Your task to perform on an android device: turn off location history Image 0: 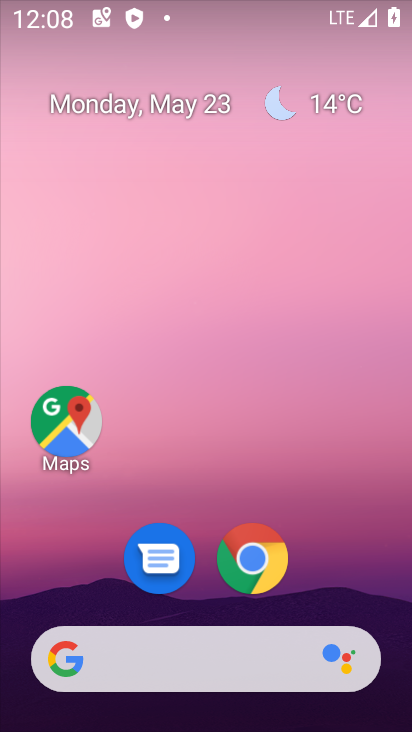
Step 0: click (70, 423)
Your task to perform on an android device: turn off location history Image 1: 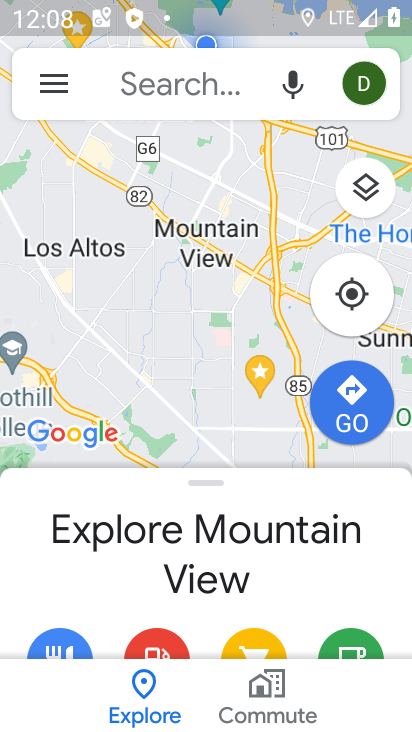
Step 1: click (59, 81)
Your task to perform on an android device: turn off location history Image 2: 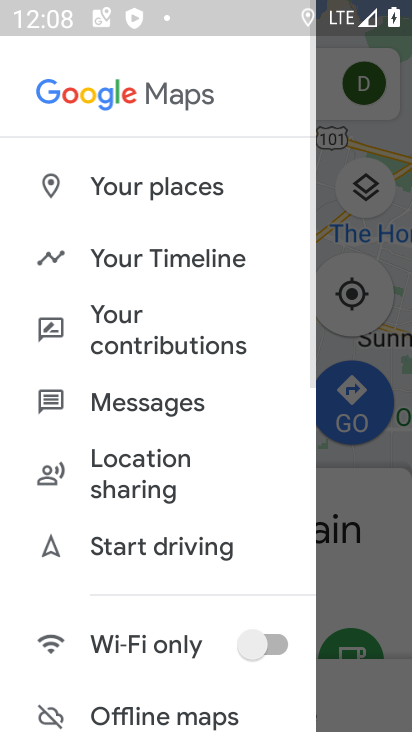
Step 2: click (135, 263)
Your task to perform on an android device: turn off location history Image 3: 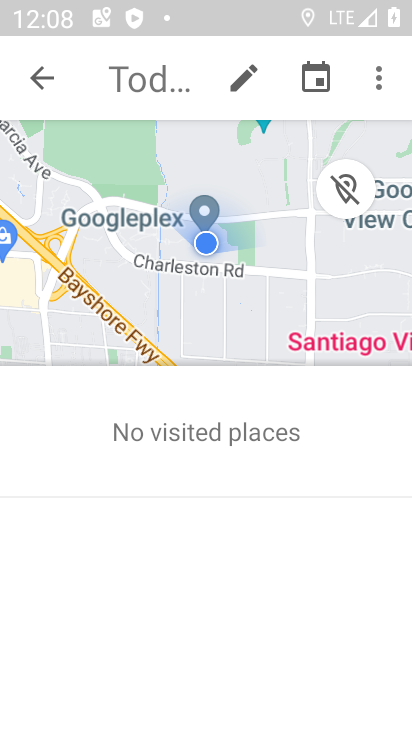
Step 3: click (381, 79)
Your task to perform on an android device: turn off location history Image 4: 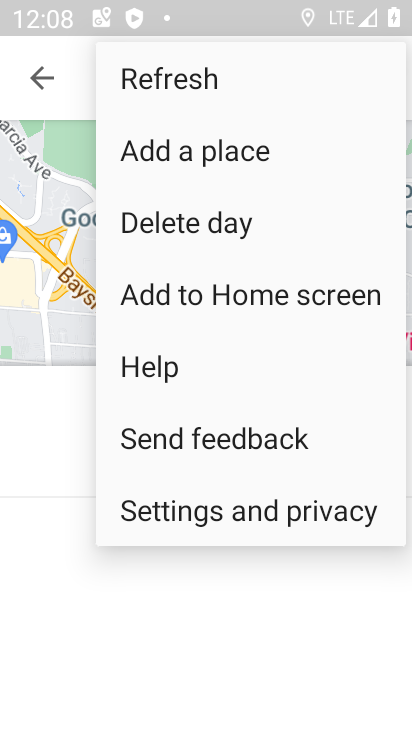
Step 4: click (218, 515)
Your task to perform on an android device: turn off location history Image 5: 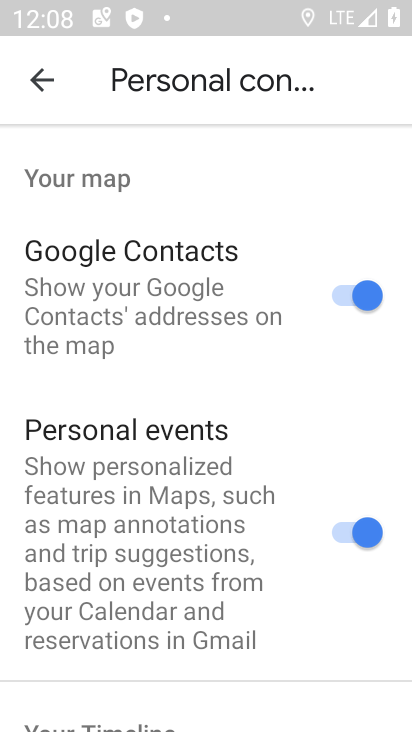
Step 5: drag from (174, 547) to (179, 89)
Your task to perform on an android device: turn off location history Image 6: 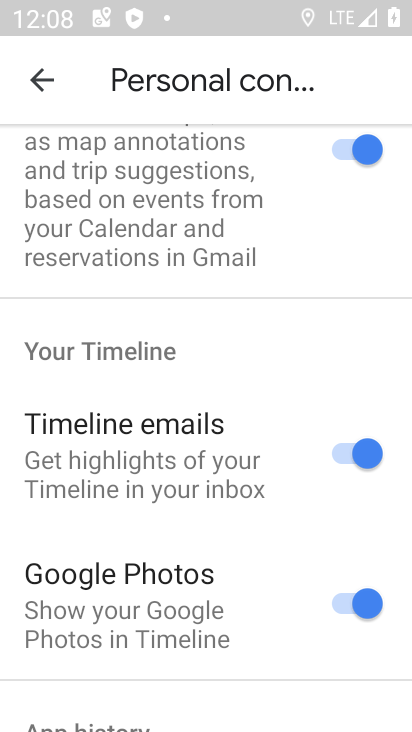
Step 6: drag from (153, 564) to (160, 158)
Your task to perform on an android device: turn off location history Image 7: 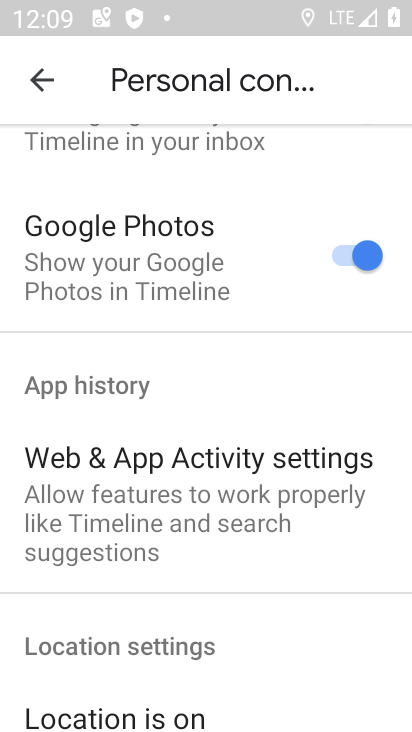
Step 7: drag from (156, 601) to (150, 112)
Your task to perform on an android device: turn off location history Image 8: 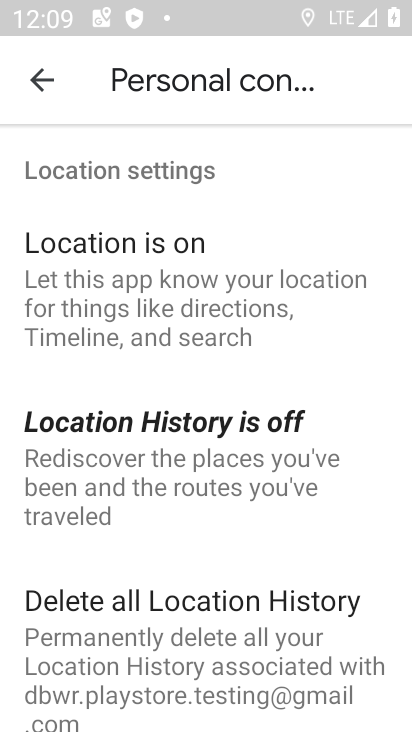
Step 8: click (126, 462)
Your task to perform on an android device: turn off location history Image 9: 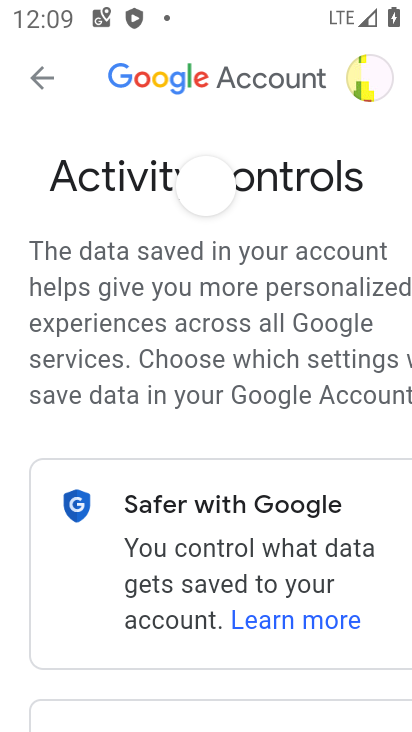
Step 9: drag from (232, 617) to (185, 115)
Your task to perform on an android device: turn off location history Image 10: 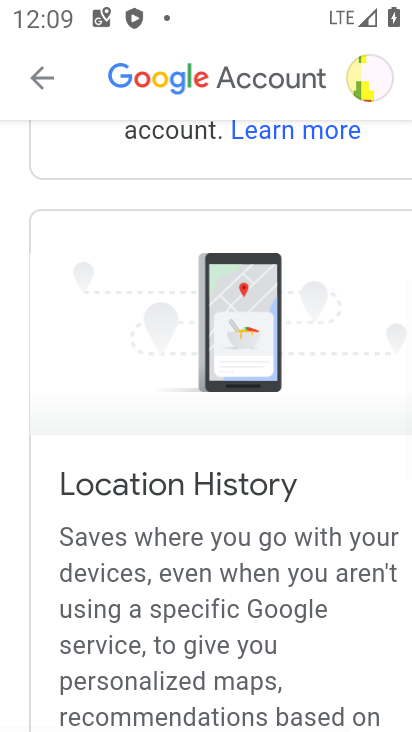
Step 10: drag from (183, 611) to (182, 109)
Your task to perform on an android device: turn off location history Image 11: 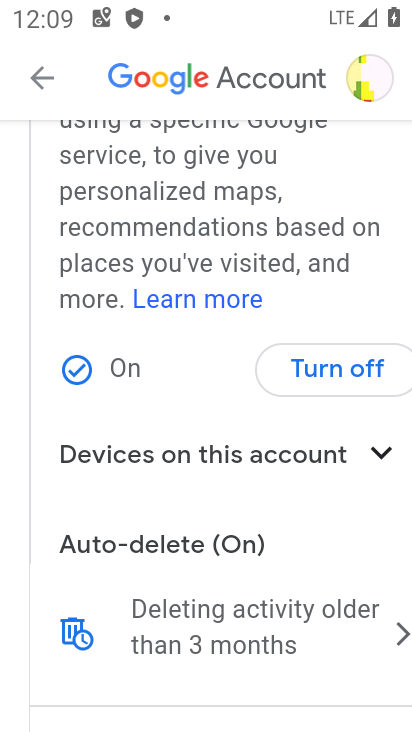
Step 11: click (338, 363)
Your task to perform on an android device: turn off location history Image 12: 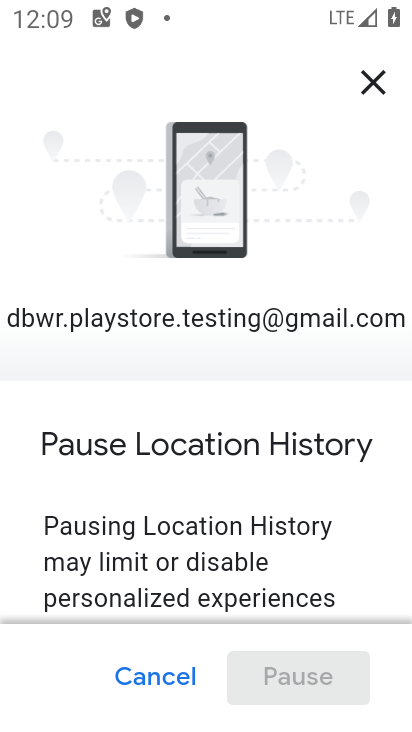
Step 12: drag from (197, 515) to (195, 63)
Your task to perform on an android device: turn off location history Image 13: 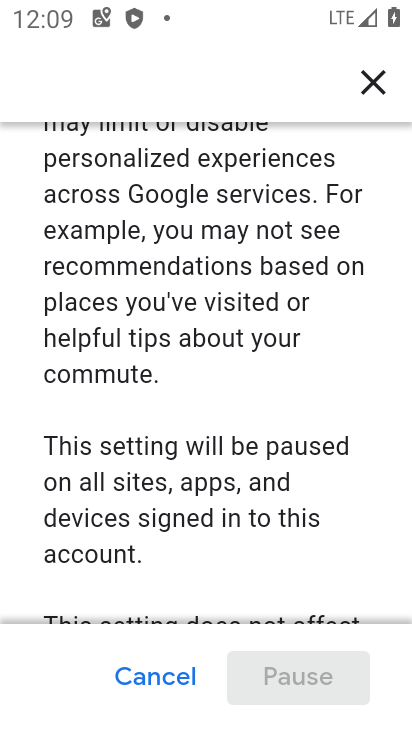
Step 13: drag from (189, 510) to (160, 83)
Your task to perform on an android device: turn off location history Image 14: 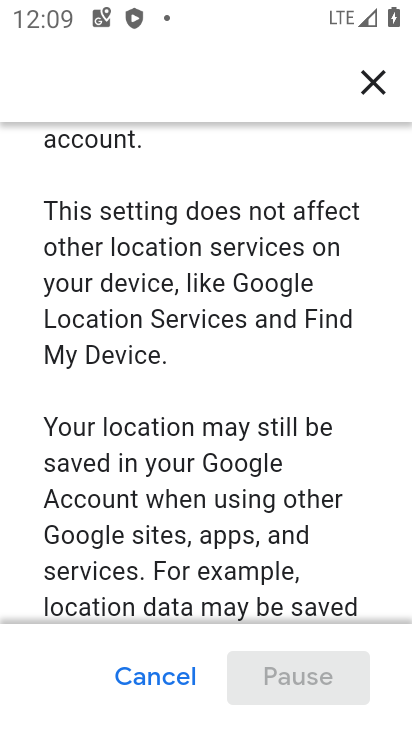
Step 14: drag from (164, 547) to (149, 91)
Your task to perform on an android device: turn off location history Image 15: 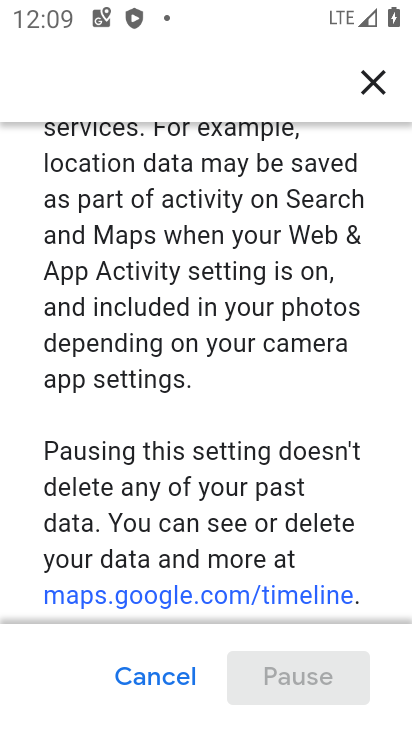
Step 15: drag from (203, 524) to (180, 82)
Your task to perform on an android device: turn off location history Image 16: 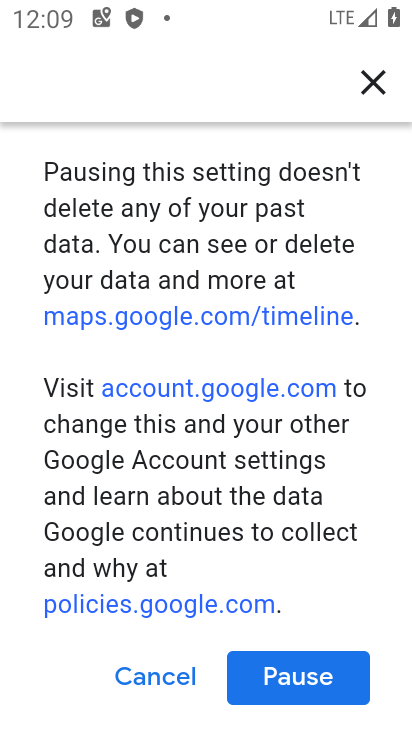
Step 16: drag from (201, 505) to (221, 192)
Your task to perform on an android device: turn off location history Image 17: 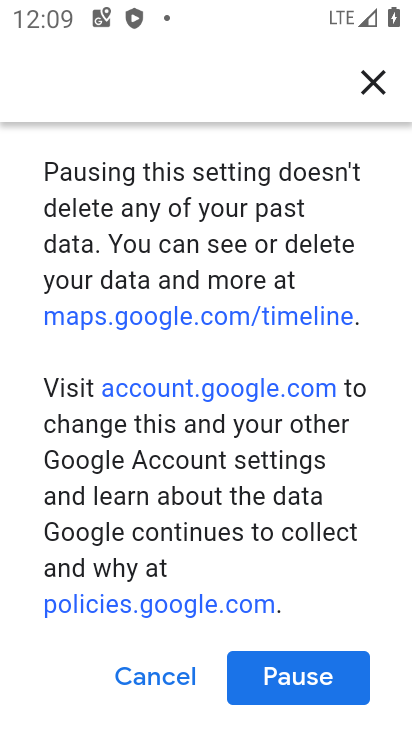
Step 17: click (288, 684)
Your task to perform on an android device: turn off location history Image 18: 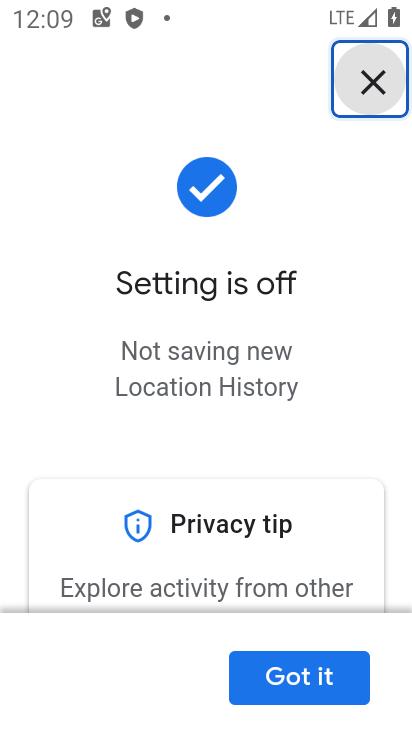
Step 18: drag from (236, 546) to (211, 154)
Your task to perform on an android device: turn off location history Image 19: 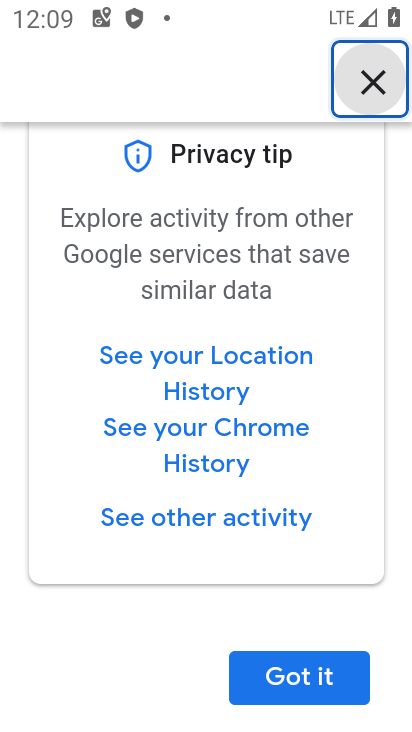
Step 19: click (298, 685)
Your task to perform on an android device: turn off location history Image 20: 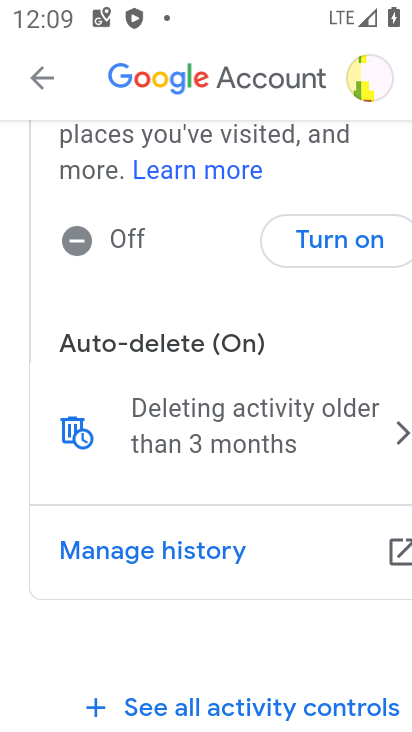
Step 20: task complete